Your task to perform on an android device: Play the last video I watched on Youtube Image 0: 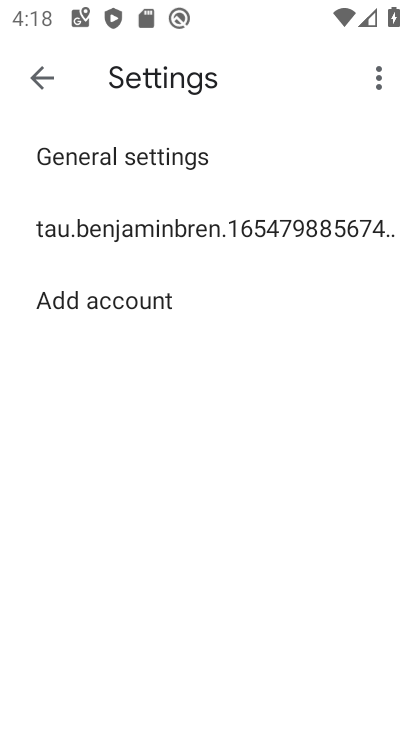
Step 0: press back button
Your task to perform on an android device: Play the last video I watched on Youtube Image 1: 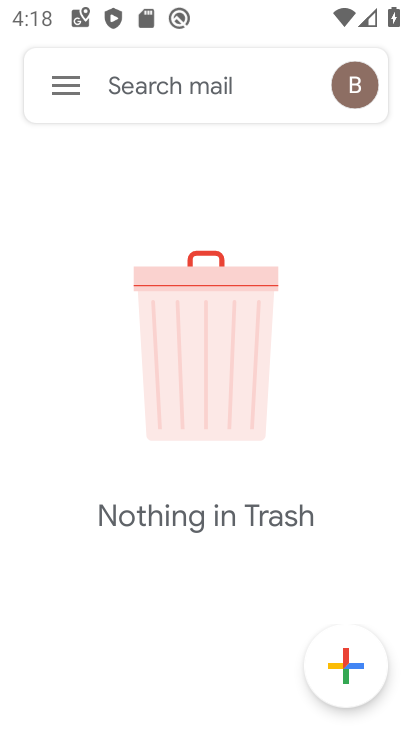
Step 1: press back button
Your task to perform on an android device: Play the last video I watched on Youtube Image 2: 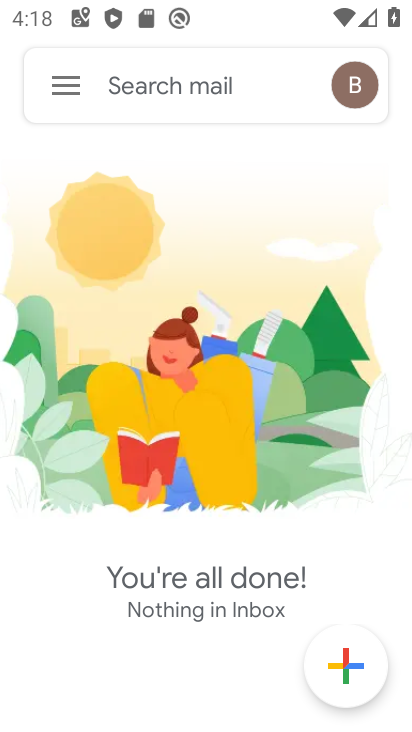
Step 2: press back button
Your task to perform on an android device: Play the last video I watched on Youtube Image 3: 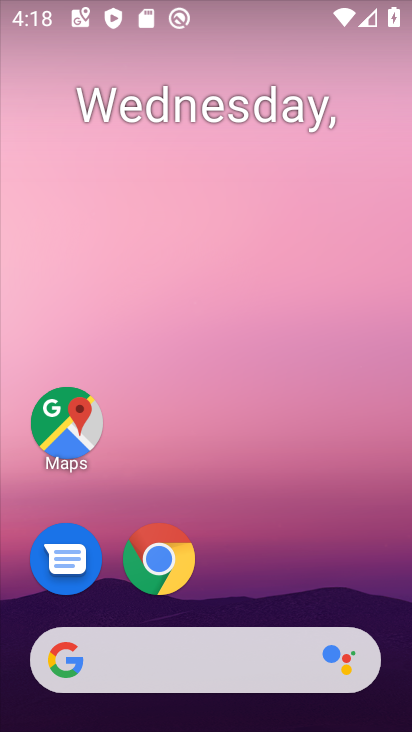
Step 3: drag from (212, 592) to (299, 68)
Your task to perform on an android device: Play the last video I watched on Youtube Image 4: 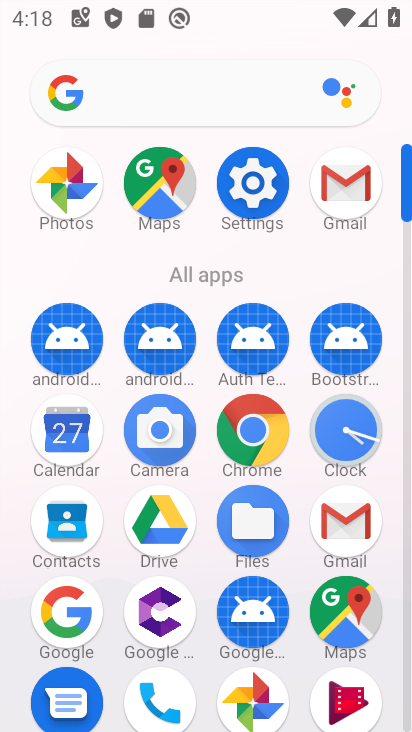
Step 4: drag from (188, 620) to (237, 78)
Your task to perform on an android device: Play the last video I watched on Youtube Image 5: 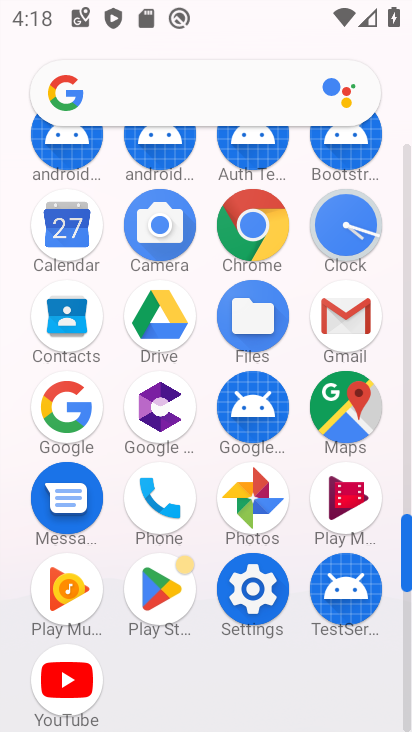
Step 5: click (61, 686)
Your task to perform on an android device: Play the last video I watched on Youtube Image 6: 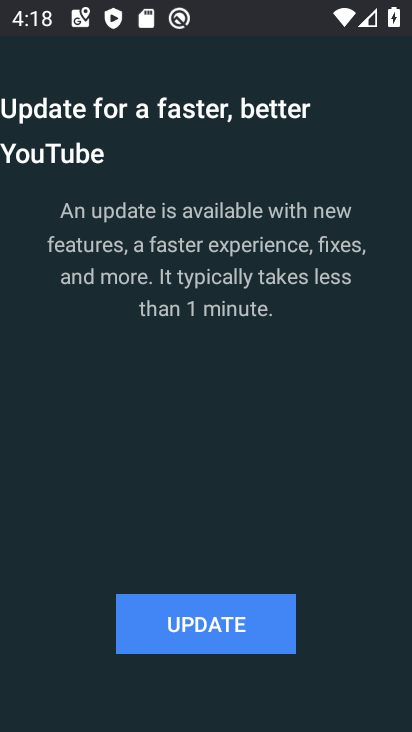
Step 6: click (203, 637)
Your task to perform on an android device: Play the last video I watched on Youtube Image 7: 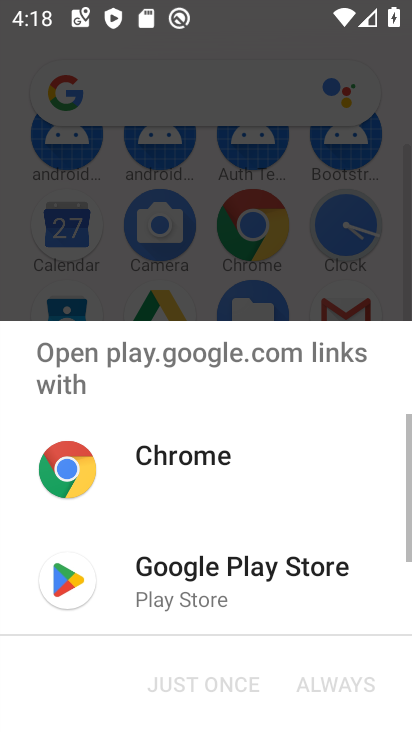
Step 7: click (176, 588)
Your task to perform on an android device: Play the last video I watched on Youtube Image 8: 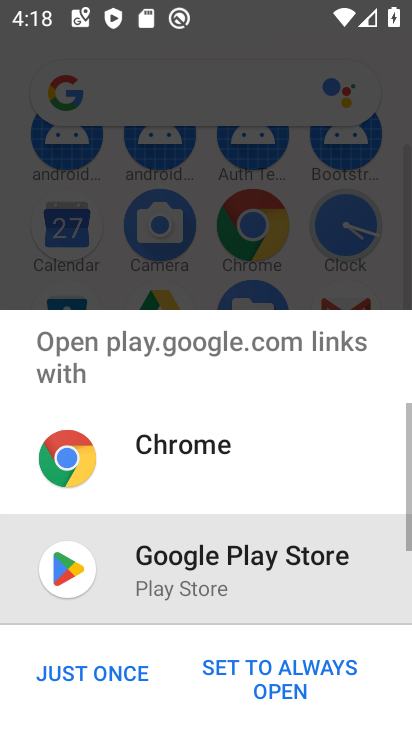
Step 8: click (121, 675)
Your task to perform on an android device: Play the last video I watched on Youtube Image 9: 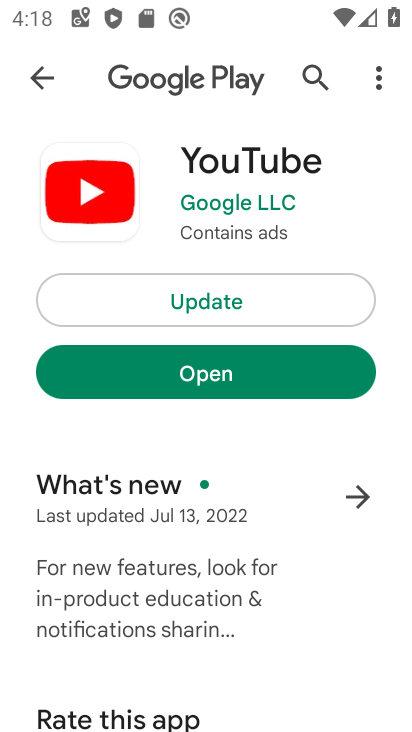
Step 9: click (228, 309)
Your task to perform on an android device: Play the last video I watched on Youtube Image 10: 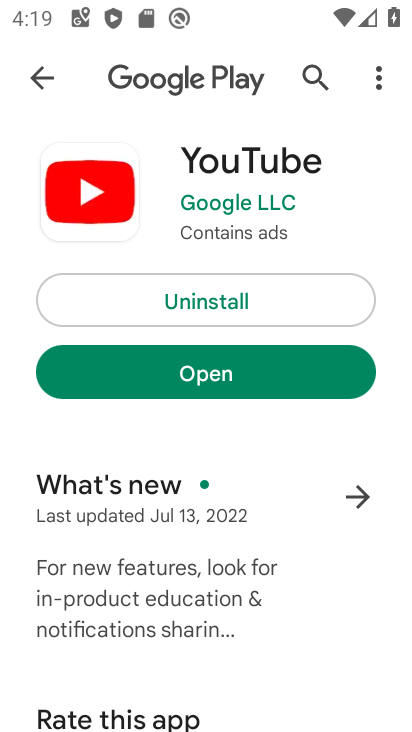
Step 10: click (257, 382)
Your task to perform on an android device: Play the last video I watched on Youtube Image 11: 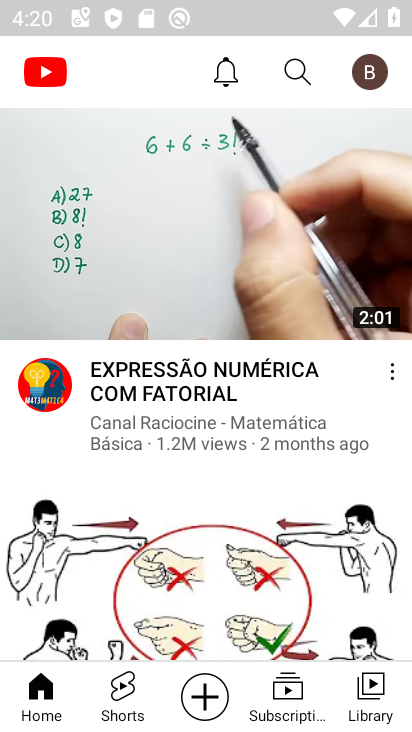
Step 11: click (360, 707)
Your task to perform on an android device: Play the last video I watched on Youtube Image 12: 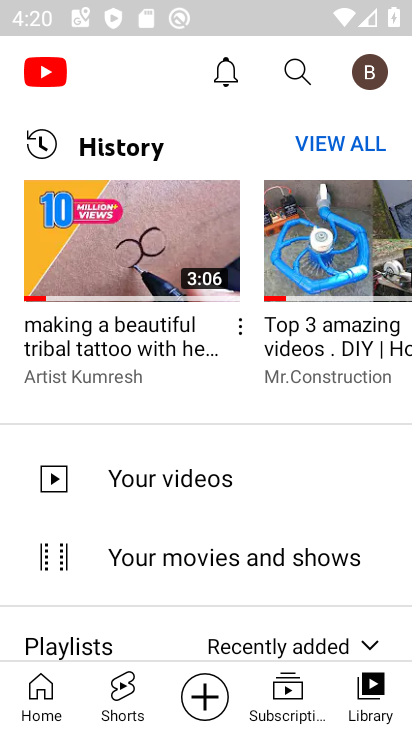
Step 12: click (98, 224)
Your task to perform on an android device: Play the last video I watched on Youtube Image 13: 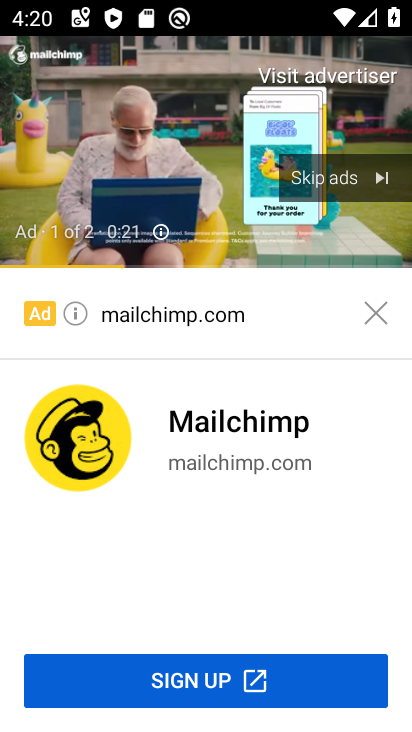
Step 13: click (343, 158)
Your task to perform on an android device: Play the last video I watched on Youtube Image 14: 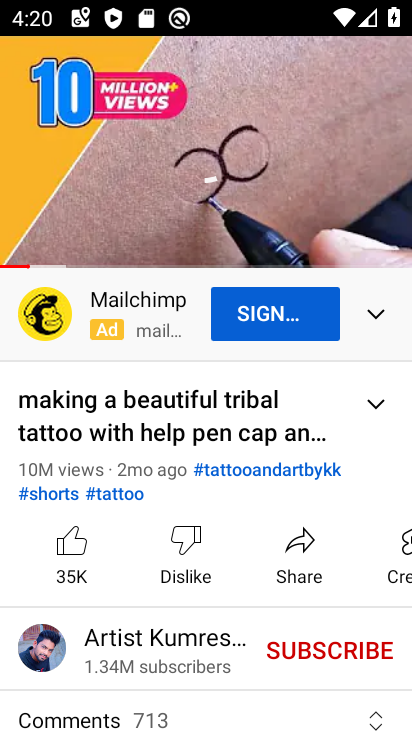
Step 14: click (211, 145)
Your task to perform on an android device: Play the last video I watched on Youtube Image 15: 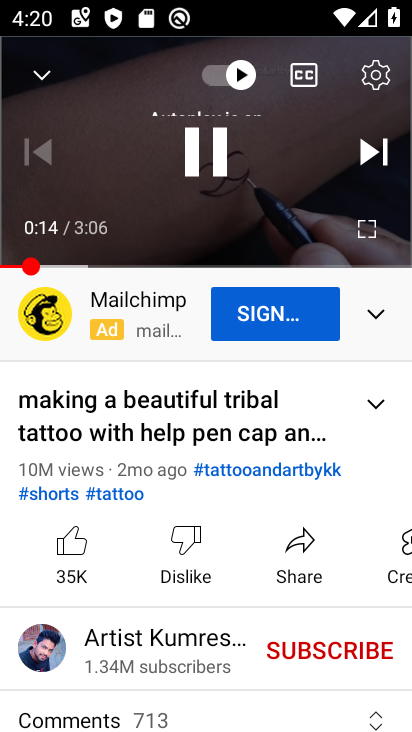
Step 15: click (212, 141)
Your task to perform on an android device: Play the last video I watched on Youtube Image 16: 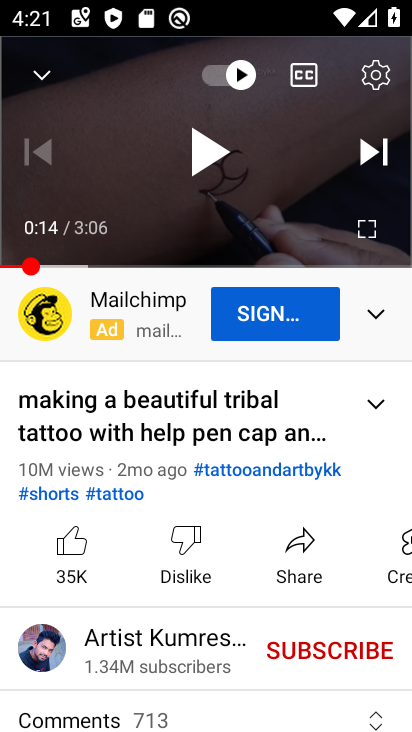
Step 16: task complete